Your task to perform on an android device: Search for vegetarian restaurants on Maps Image 0: 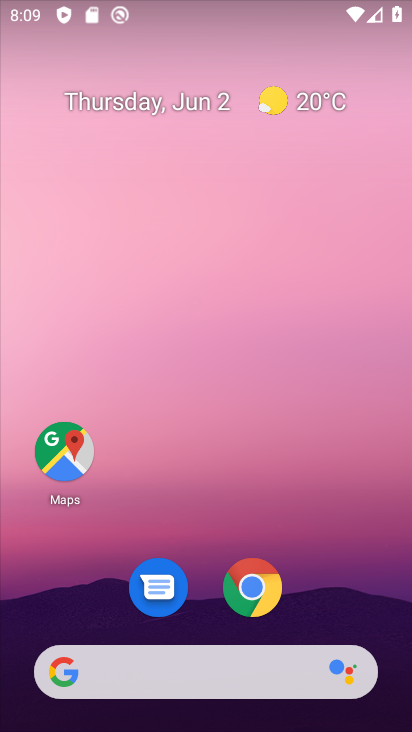
Step 0: click (220, 229)
Your task to perform on an android device: Search for vegetarian restaurants on Maps Image 1: 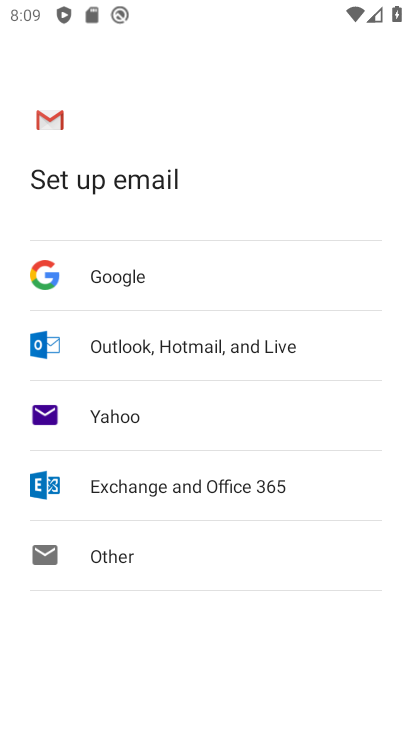
Step 1: press home button
Your task to perform on an android device: Search for vegetarian restaurants on Maps Image 2: 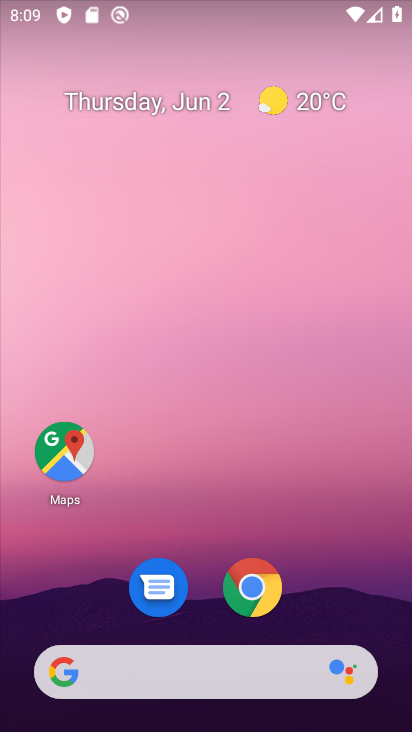
Step 2: click (67, 443)
Your task to perform on an android device: Search for vegetarian restaurants on Maps Image 3: 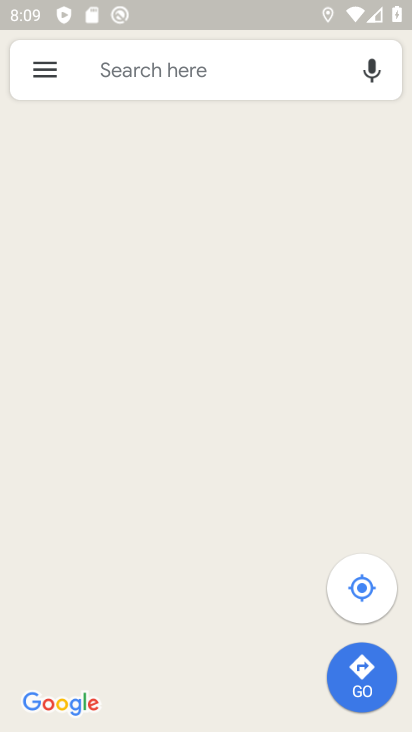
Step 3: click (172, 77)
Your task to perform on an android device: Search for vegetarian restaurants on Maps Image 4: 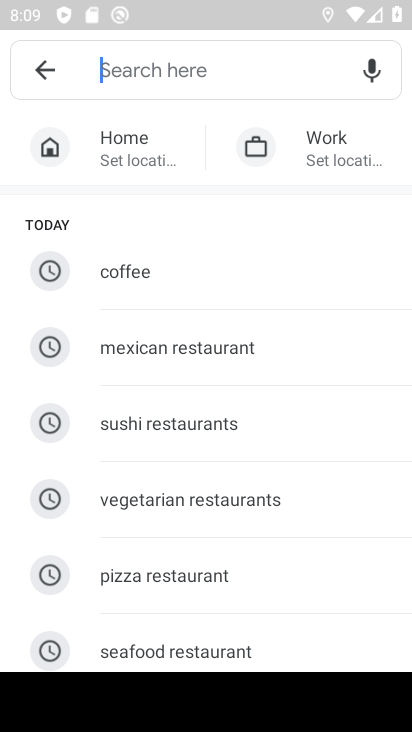
Step 4: type "vegetarian rs"
Your task to perform on an android device: Search for vegetarian restaurants on Maps Image 5: 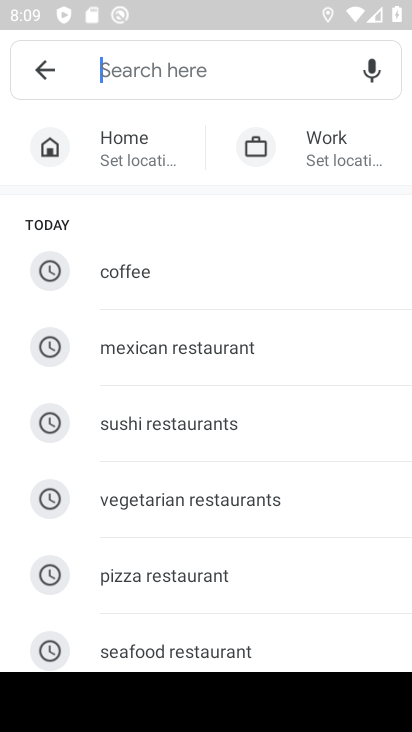
Step 5: click (239, 490)
Your task to perform on an android device: Search for vegetarian restaurants on Maps Image 6: 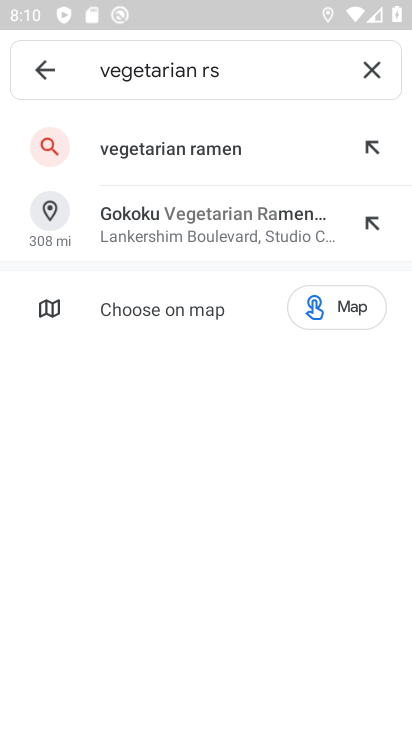
Step 6: click (360, 80)
Your task to perform on an android device: Search for vegetarian restaurants on Maps Image 7: 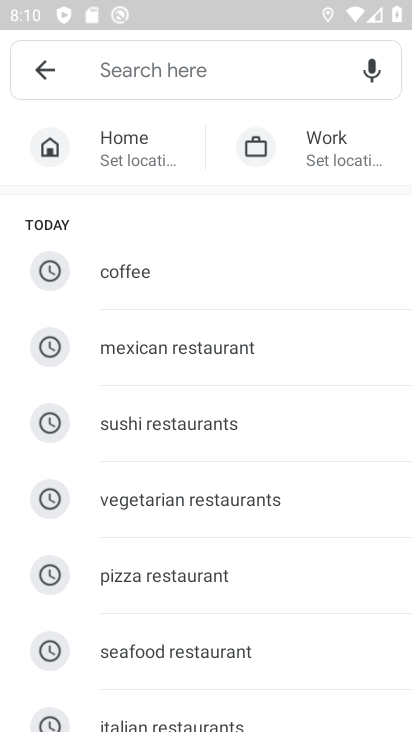
Step 7: click (225, 495)
Your task to perform on an android device: Search for vegetarian restaurants on Maps Image 8: 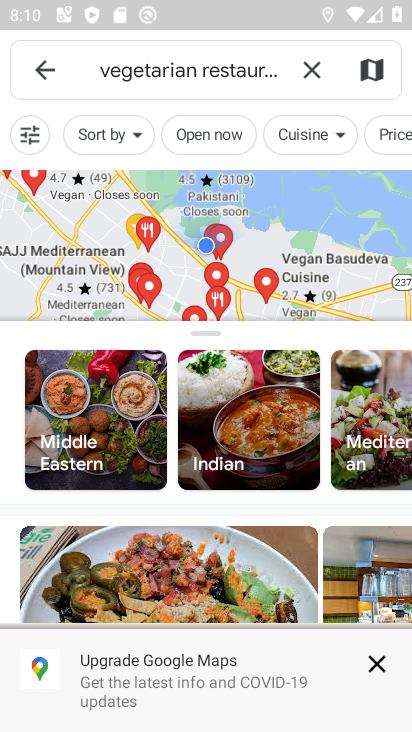
Step 8: task complete